Your task to perform on an android device: Is it going to rain this weekend? Image 0: 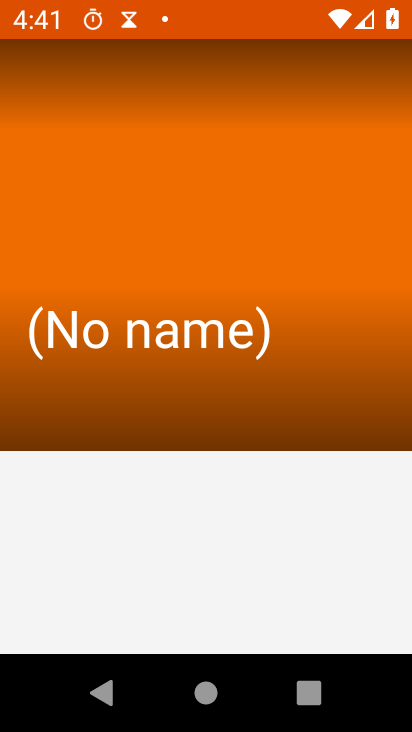
Step 0: drag from (274, 608) to (356, 67)
Your task to perform on an android device: Is it going to rain this weekend? Image 1: 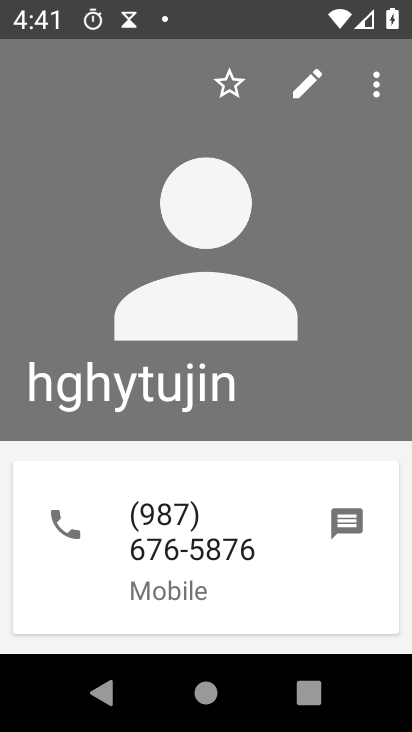
Step 1: press home button
Your task to perform on an android device: Is it going to rain this weekend? Image 2: 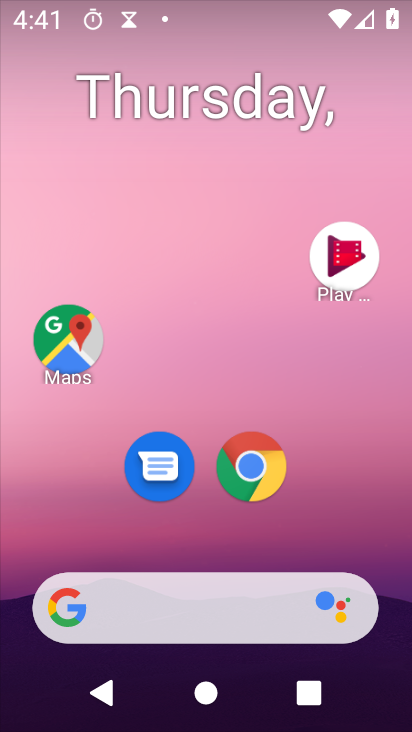
Step 2: drag from (252, 271) to (219, 6)
Your task to perform on an android device: Is it going to rain this weekend? Image 3: 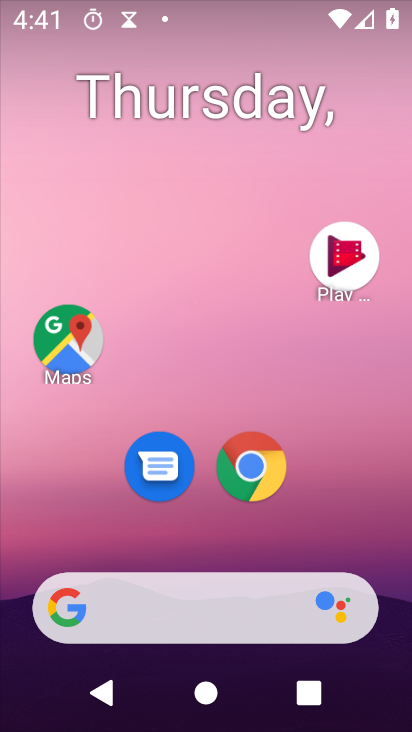
Step 3: drag from (283, 587) to (350, 0)
Your task to perform on an android device: Is it going to rain this weekend? Image 4: 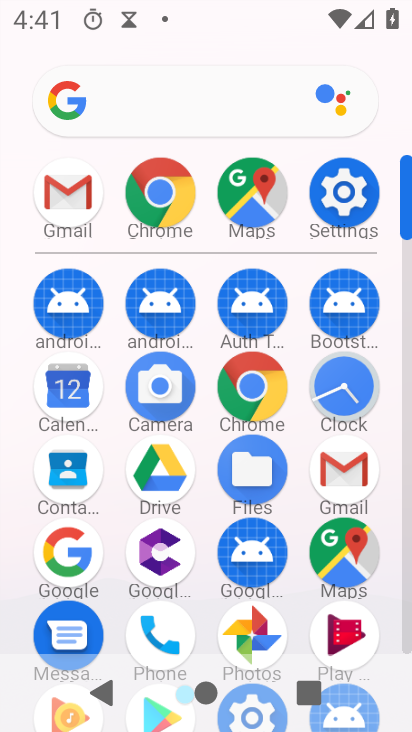
Step 4: click (70, 408)
Your task to perform on an android device: Is it going to rain this weekend? Image 5: 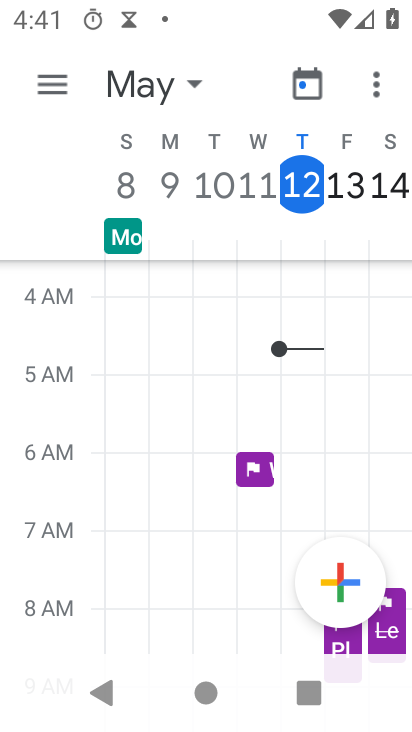
Step 5: press home button
Your task to perform on an android device: Is it going to rain this weekend? Image 6: 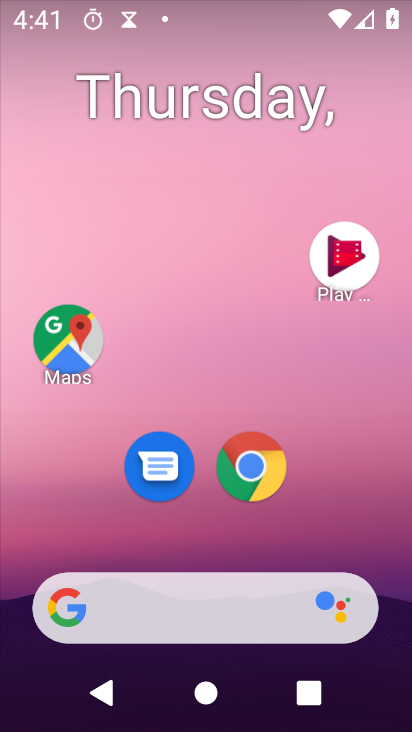
Step 6: drag from (253, 579) to (363, 5)
Your task to perform on an android device: Is it going to rain this weekend? Image 7: 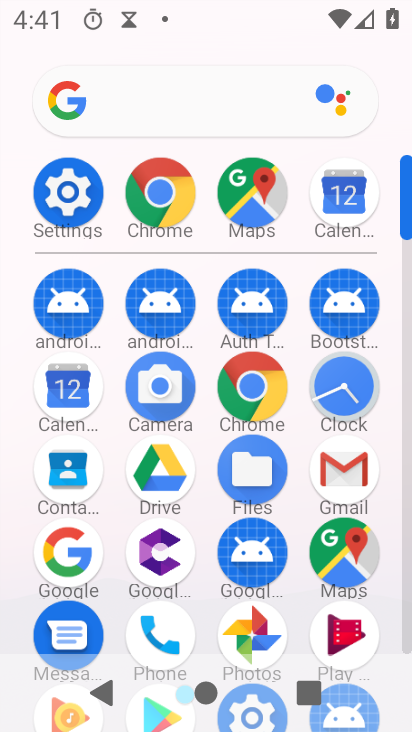
Step 7: click (259, 396)
Your task to perform on an android device: Is it going to rain this weekend? Image 8: 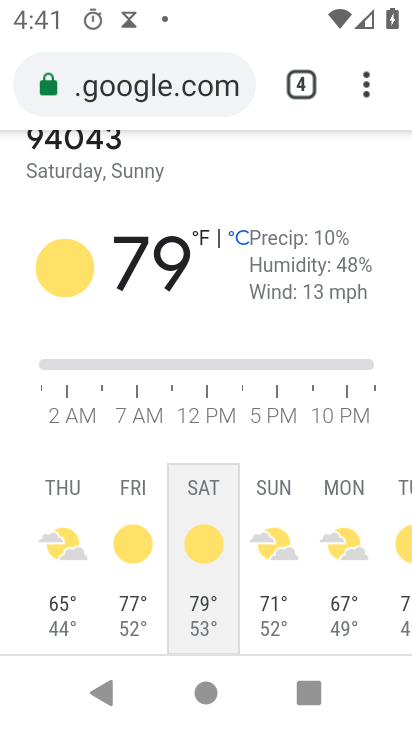
Step 8: click (175, 80)
Your task to perform on an android device: Is it going to rain this weekend? Image 9: 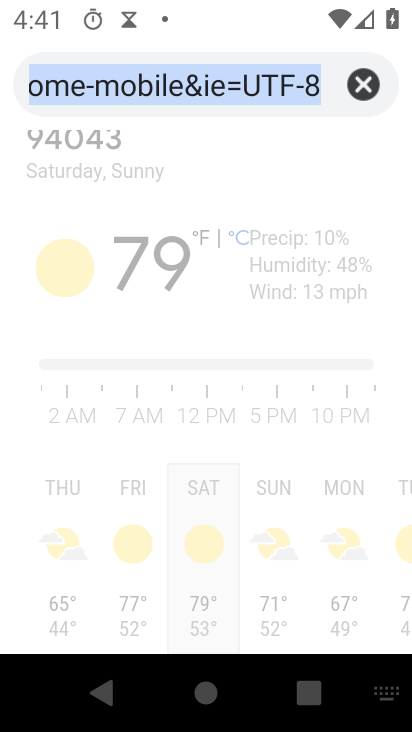
Step 9: click (365, 92)
Your task to perform on an android device: Is it going to rain this weekend? Image 10: 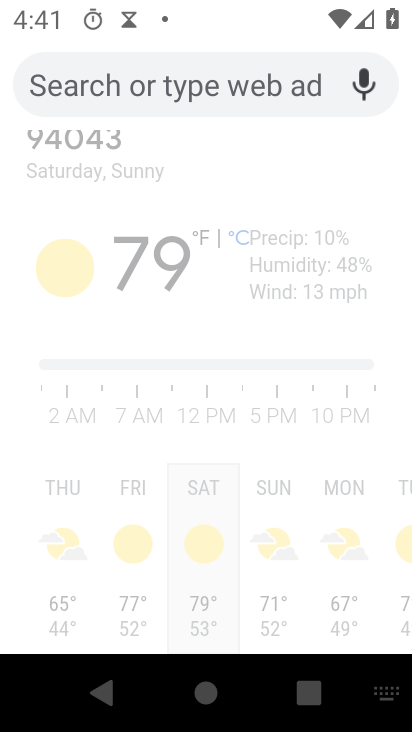
Step 10: type "goin to rain this weekend"
Your task to perform on an android device: Is it going to rain this weekend? Image 11: 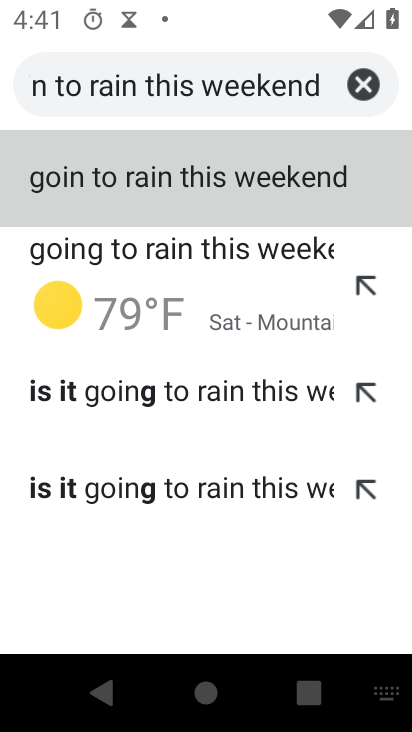
Step 11: click (332, 170)
Your task to perform on an android device: Is it going to rain this weekend? Image 12: 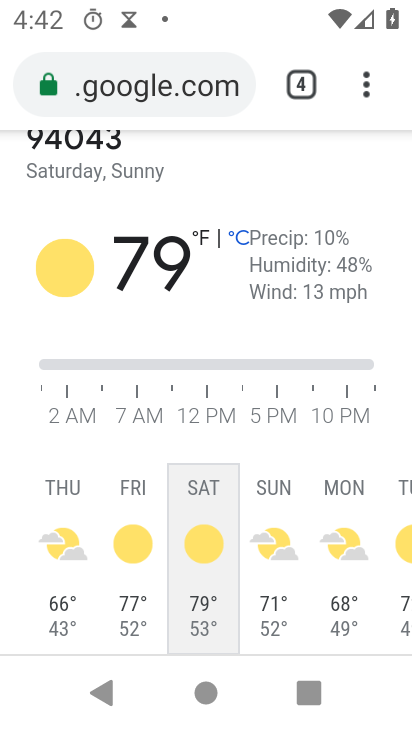
Step 12: task complete